Your task to perform on an android device: toggle wifi Image 0: 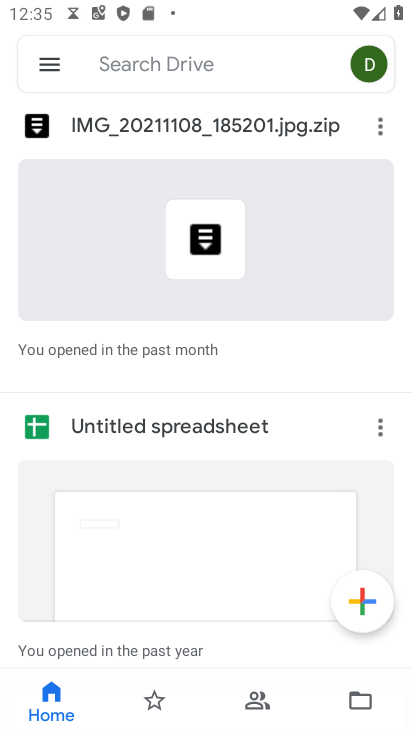
Step 0: press home button
Your task to perform on an android device: toggle wifi Image 1: 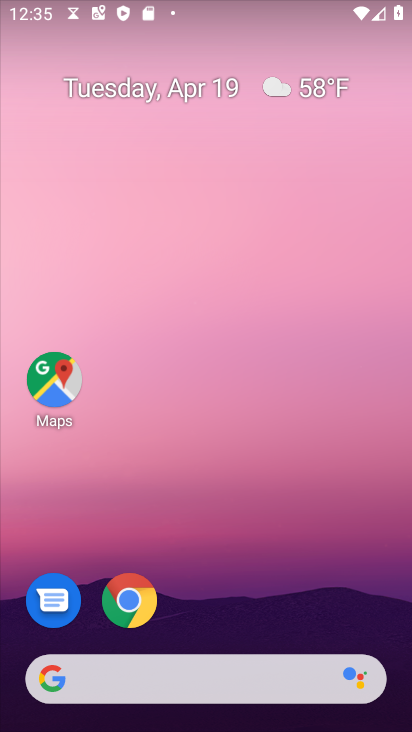
Step 1: drag from (151, 655) to (33, 136)
Your task to perform on an android device: toggle wifi Image 2: 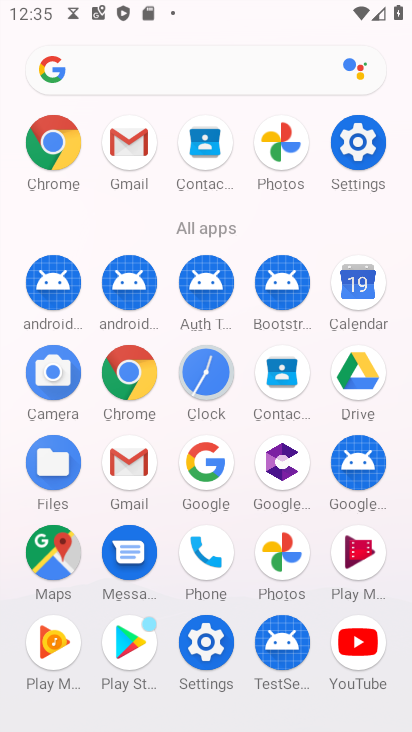
Step 2: click (354, 148)
Your task to perform on an android device: toggle wifi Image 3: 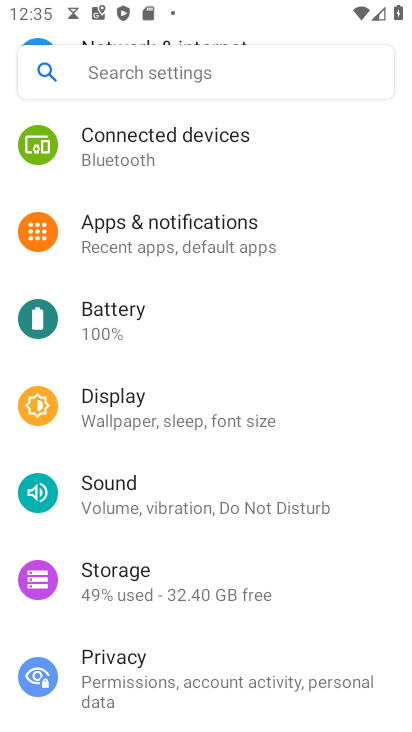
Step 3: drag from (179, 141) to (205, 357)
Your task to perform on an android device: toggle wifi Image 4: 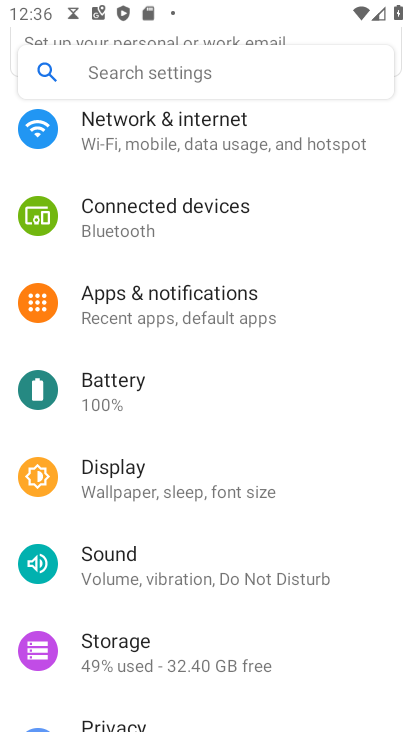
Step 4: drag from (135, 155) to (97, 565)
Your task to perform on an android device: toggle wifi Image 5: 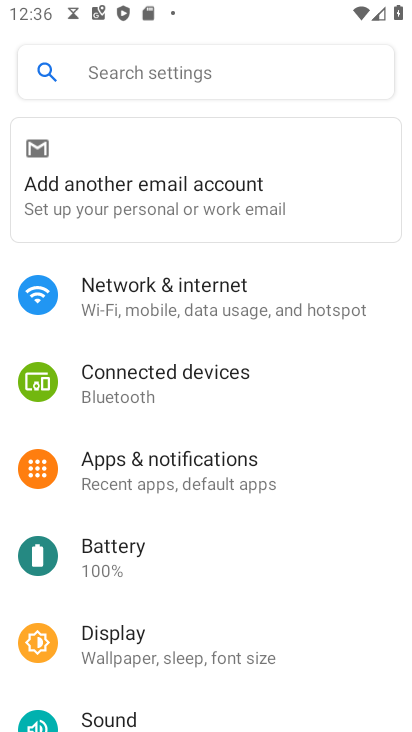
Step 5: click (161, 297)
Your task to perform on an android device: toggle wifi Image 6: 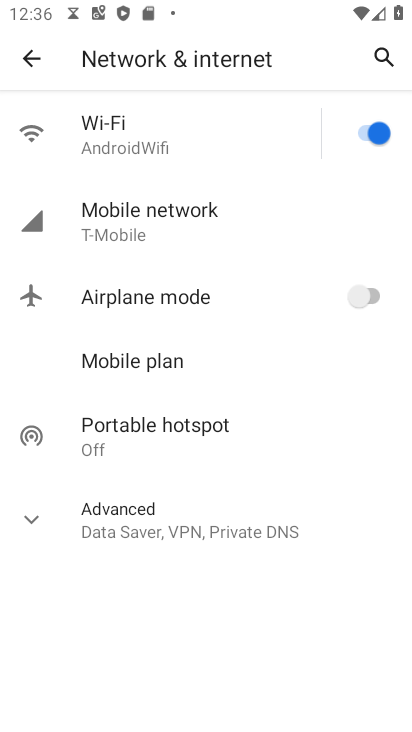
Step 6: click (372, 138)
Your task to perform on an android device: toggle wifi Image 7: 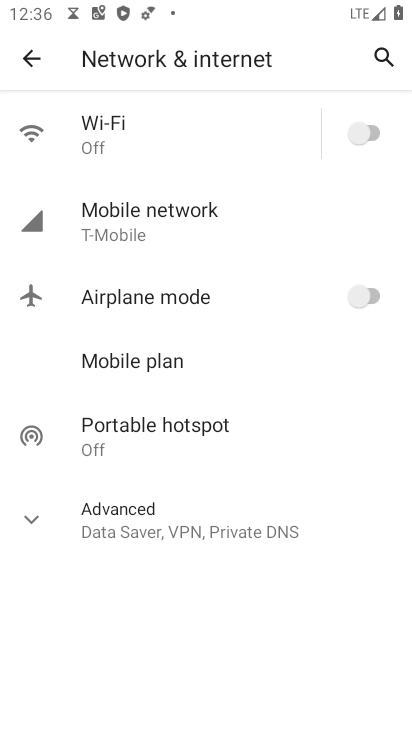
Step 7: task complete